Your task to perform on an android device: Open Google Maps Image 0: 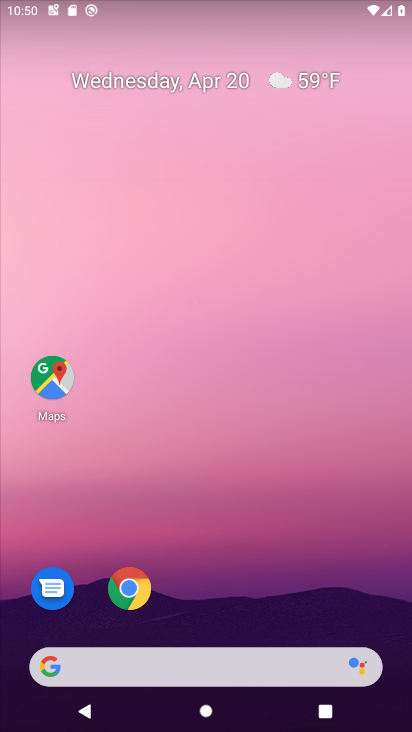
Step 0: click (48, 381)
Your task to perform on an android device: Open Google Maps Image 1: 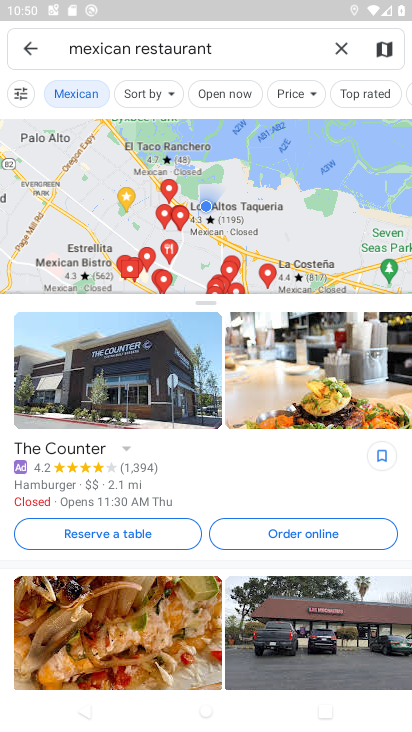
Step 1: task complete